Your task to perform on an android device: add a contact in the contacts app Image 0: 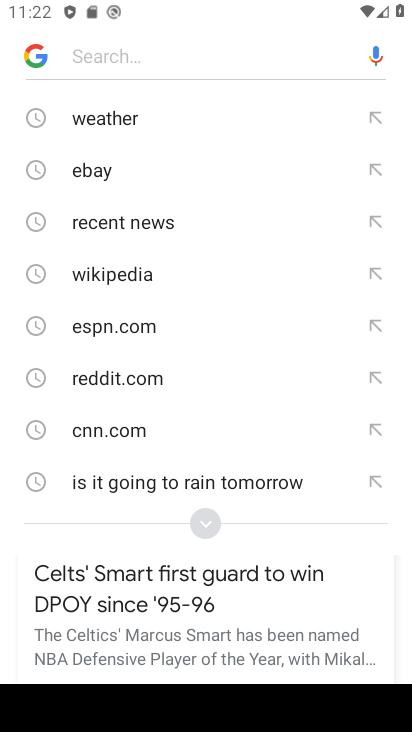
Step 0: press home button
Your task to perform on an android device: add a contact in the contacts app Image 1: 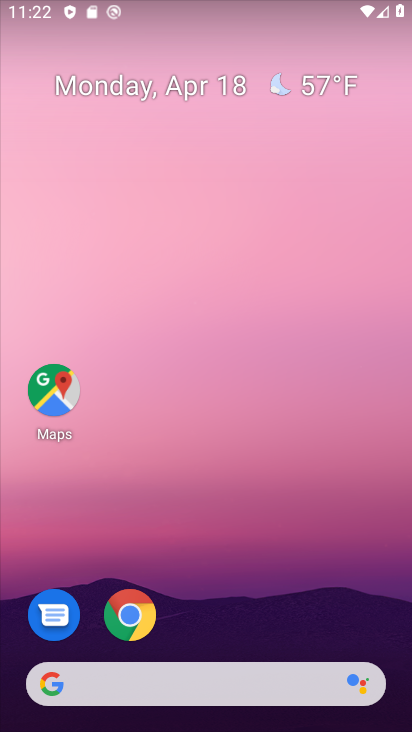
Step 1: drag from (202, 598) to (204, 177)
Your task to perform on an android device: add a contact in the contacts app Image 2: 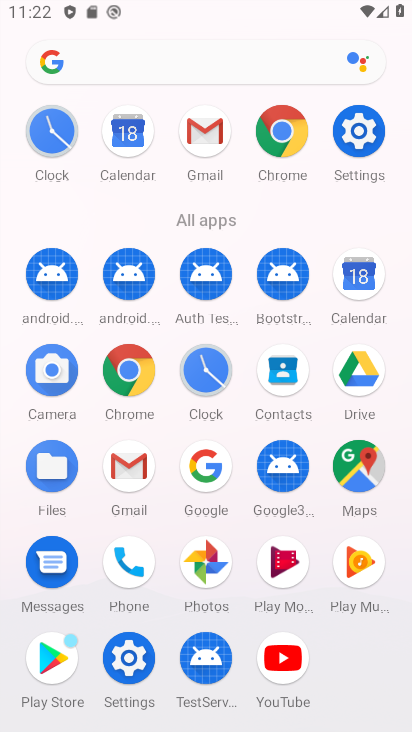
Step 2: click (124, 550)
Your task to perform on an android device: add a contact in the contacts app Image 3: 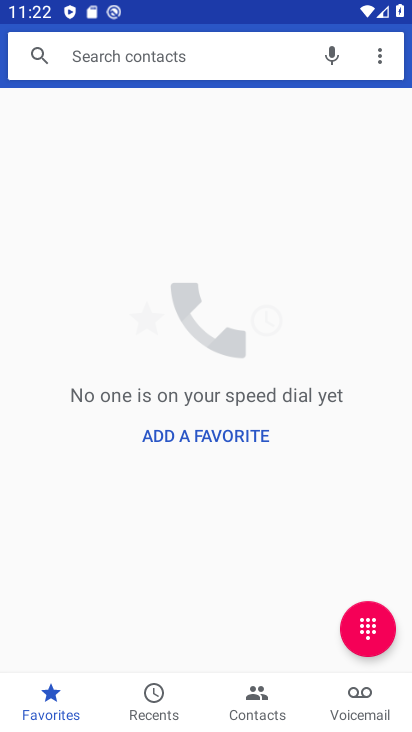
Step 3: click (260, 698)
Your task to perform on an android device: add a contact in the contacts app Image 4: 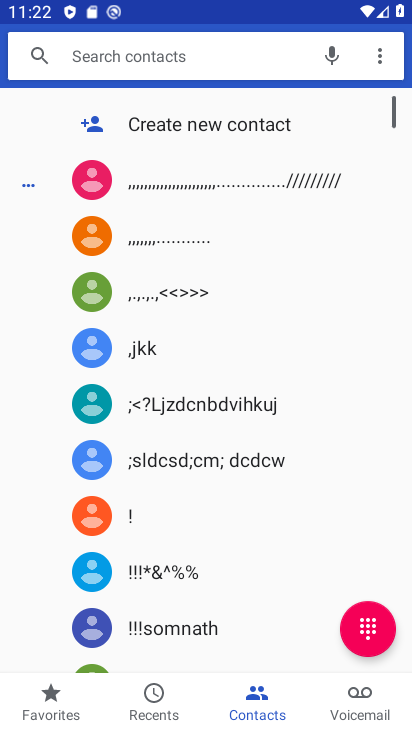
Step 4: click (386, 55)
Your task to perform on an android device: add a contact in the contacts app Image 5: 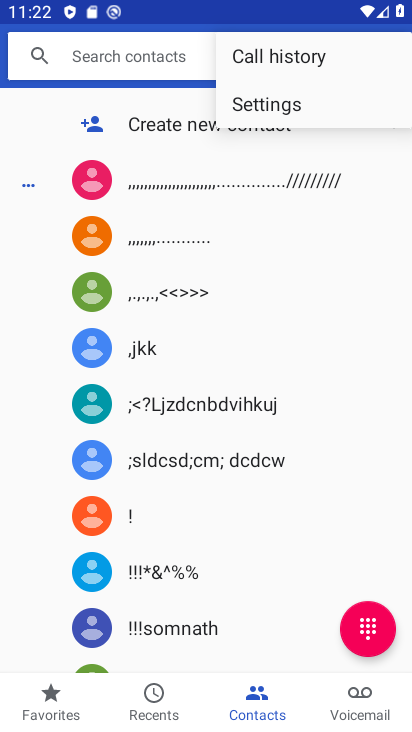
Step 5: press back button
Your task to perform on an android device: add a contact in the contacts app Image 6: 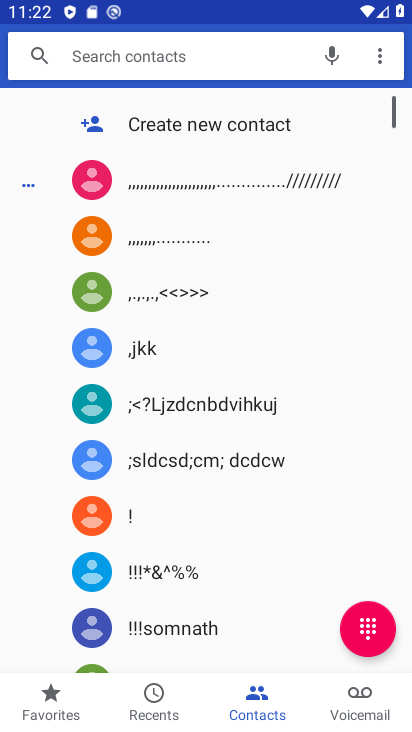
Step 6: click (249, 122)
Your task to perform on an android device: add a contact in the contacts app Image 7: 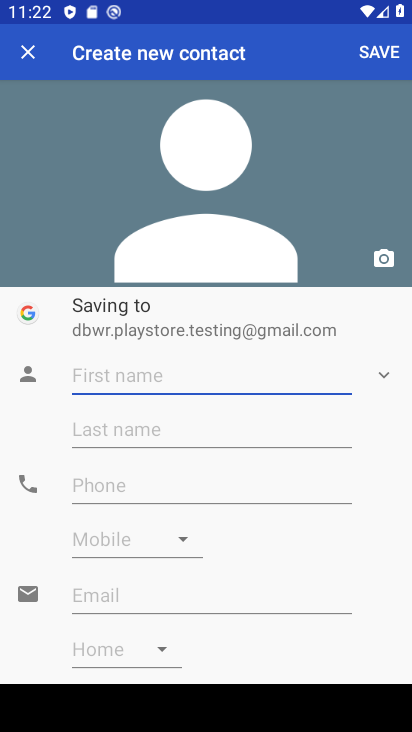
Step 7: click (162, 377)
Your task to perform on an android device: add a contact in the contacts app Image 8: 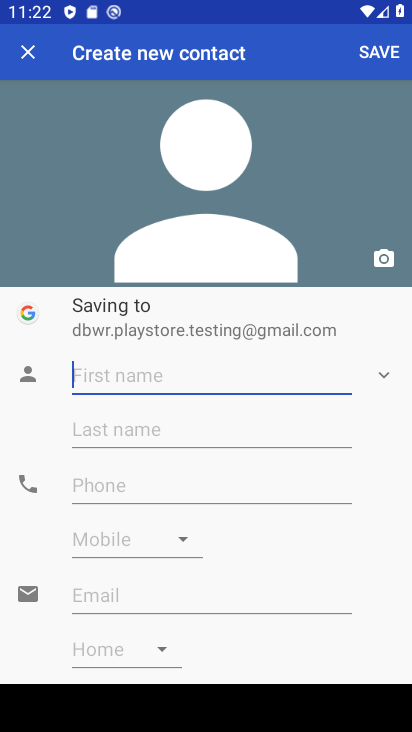
Step 8: type "fggf"
Your task to perform on an android device: add a contact in the contacts app Image 9: 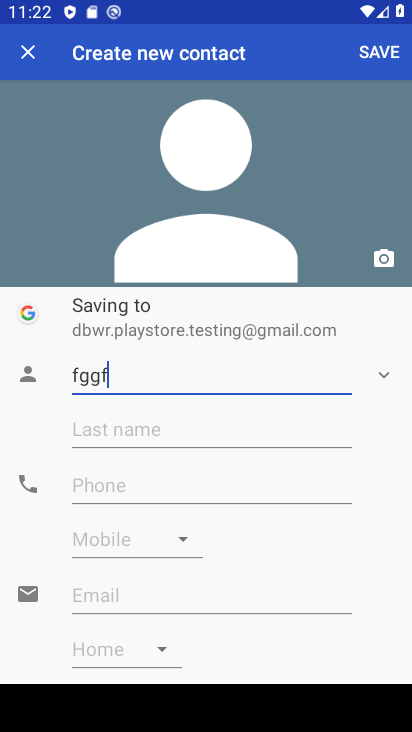
Step 9: click (122, 472)
Your task to perform on an android device: add a contact in the contacts app Image 10: 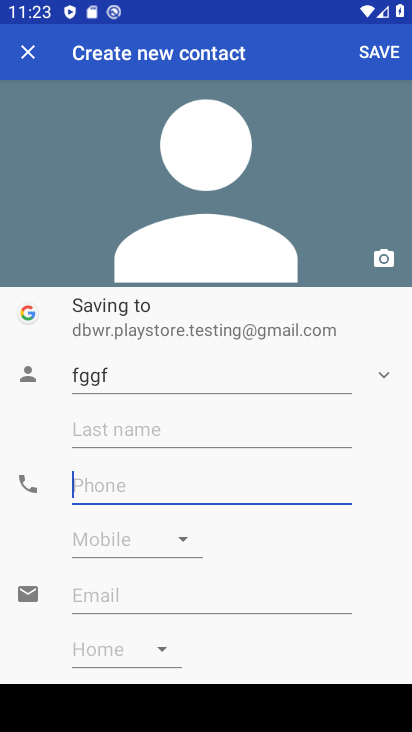
Step 10: type "86586876868"
Your task to perform on an android device: add a contact in the contacts app Image 11: 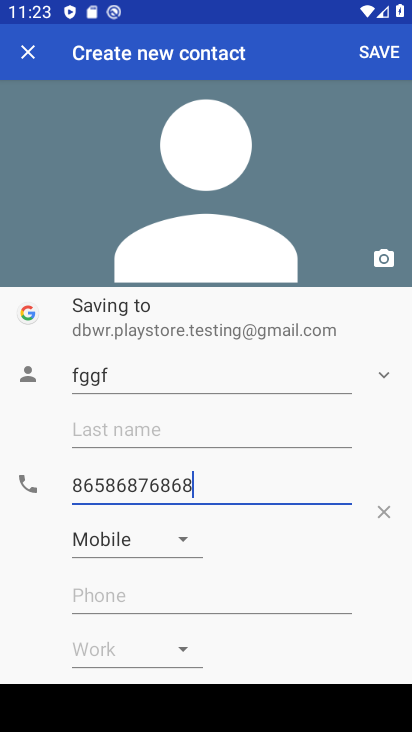
Step 11: click (360, 42)
Your task to perform on an android device: add a contact in the contacts app Image 12: 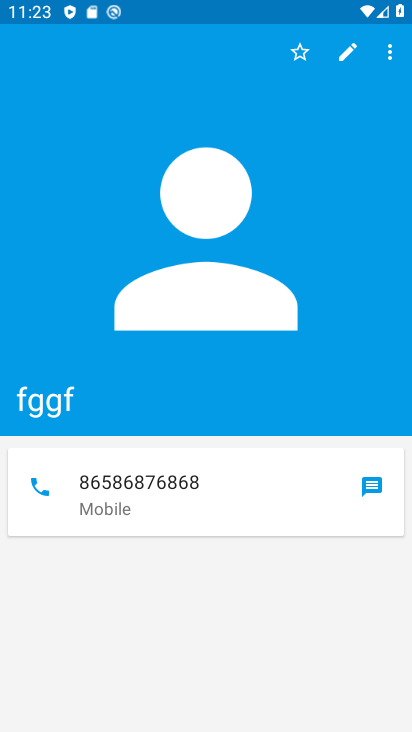
Step 12: task complete